Your task to perform on an android device: clear history in the chrome app Image 0: 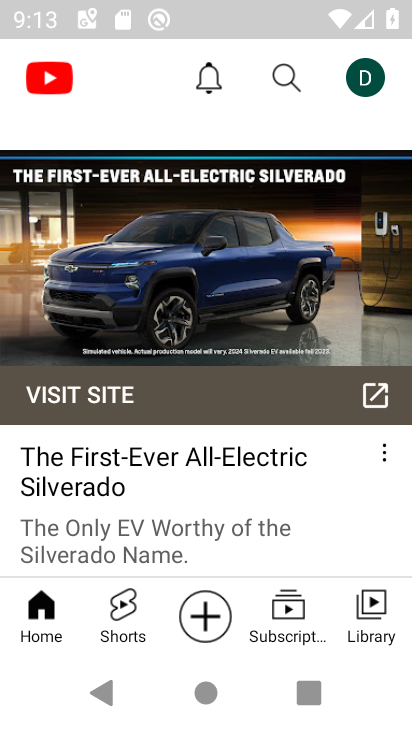
Step 0: press home button
Your task to perform on an android device: clear history in the chrome app Image 1: 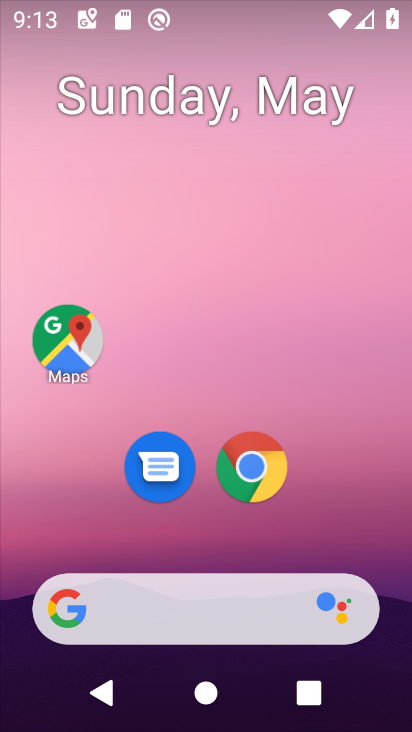
Step 1: drag from (362, 519) to (347, 187)
Your task to perform on an android device: clear history in the chrome app Image 2: 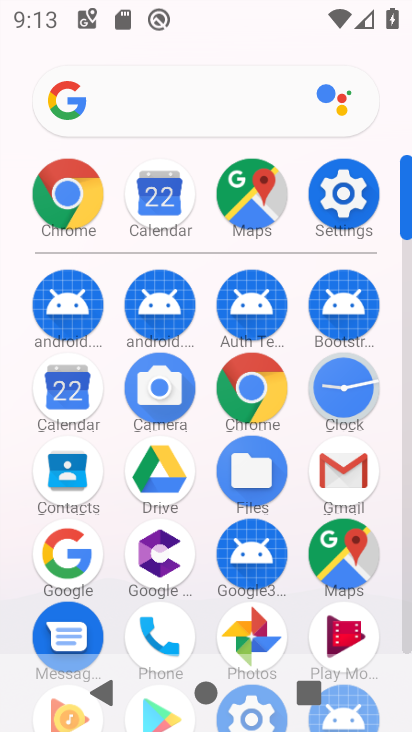
Step 2: click (255, 388)
Your task to perform on an android device: clear history in the chrome app Image 3: 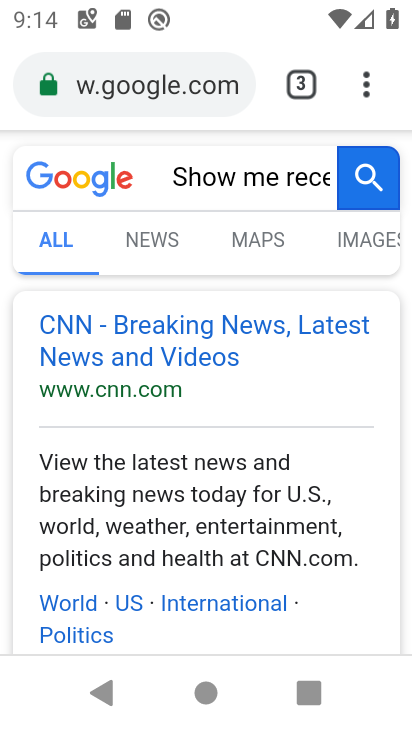
Step 3: drag from (375, 97) to (122, 495)
Your task to perform on an android device: clear history in the chrome app Image 4: 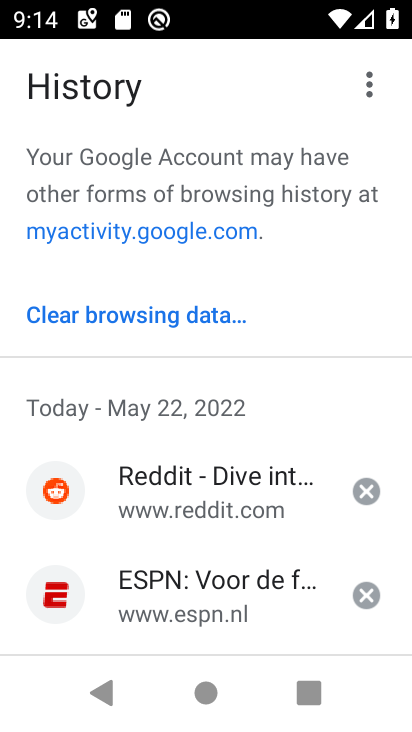
Step 4: click (193, 291)
Your task to perform on an android device: clear history in the chrome app Image 5: 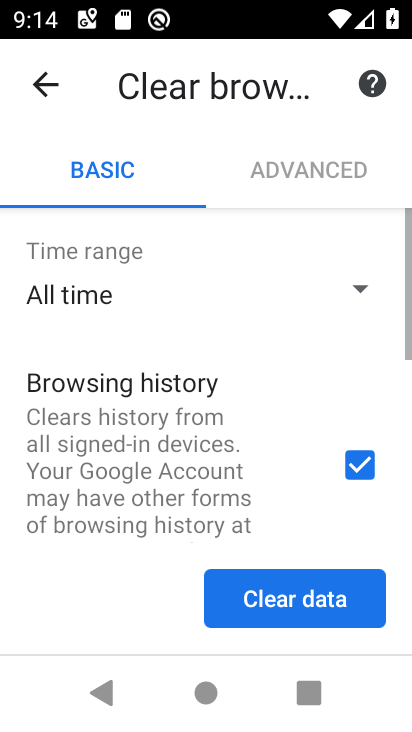
Step 5: click (297, 590)
Your task to perform on an android device: clear history in the chrome app Image 6: 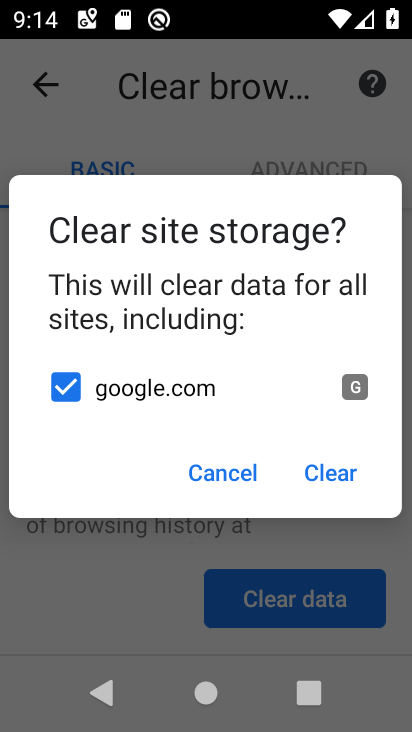
Step 6: click (335, 467)
Your task to perform on an android device: clear history in the chrome app Image 7: 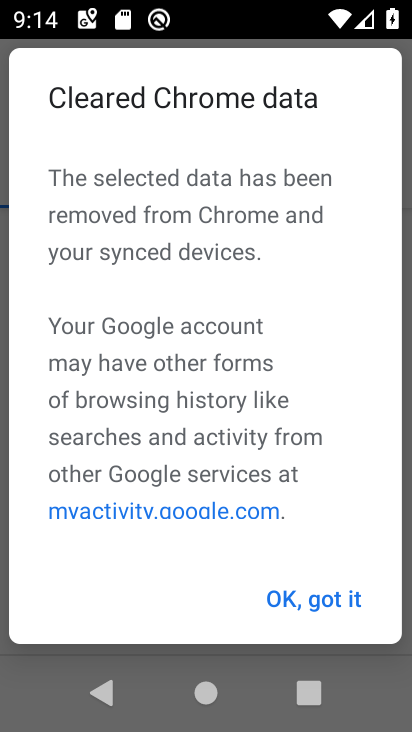
Step 7: click (311, 609)
Your task to perform on an android device: clear history in the chrome app Image 8: 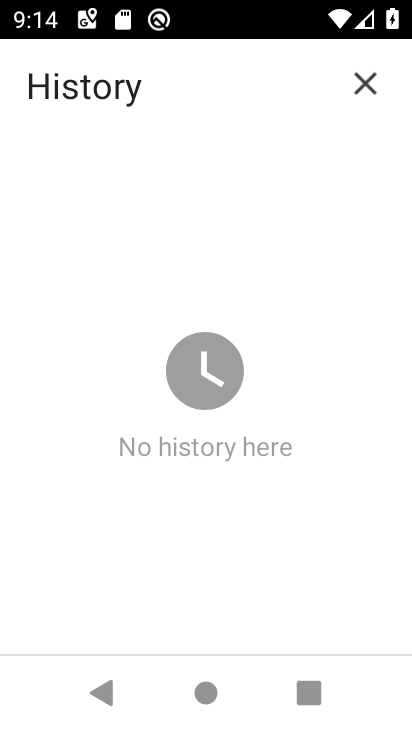
Step 8: task complete